Your task to perform on an android device: What's on my calendar today? Image 0: 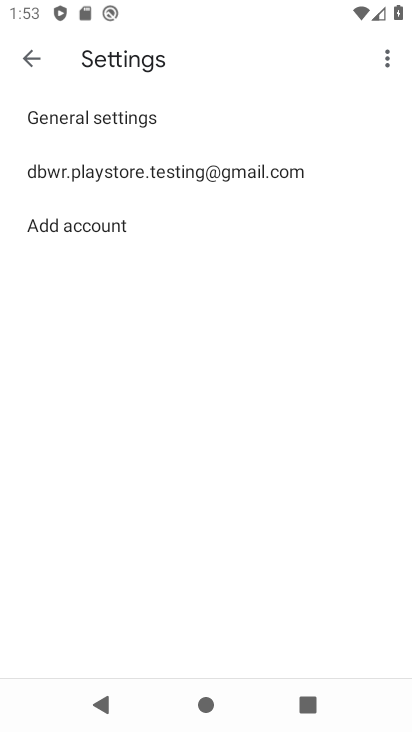
Step 0: press back button
Your task to perform on an android device: What's on my calendar today? Image 1: 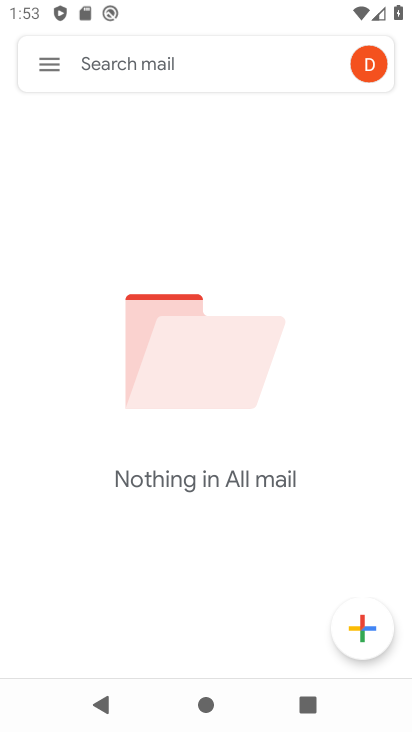
Step 1: press back button
Your task to perform on an android device: What's on my calendar today? Image 2: 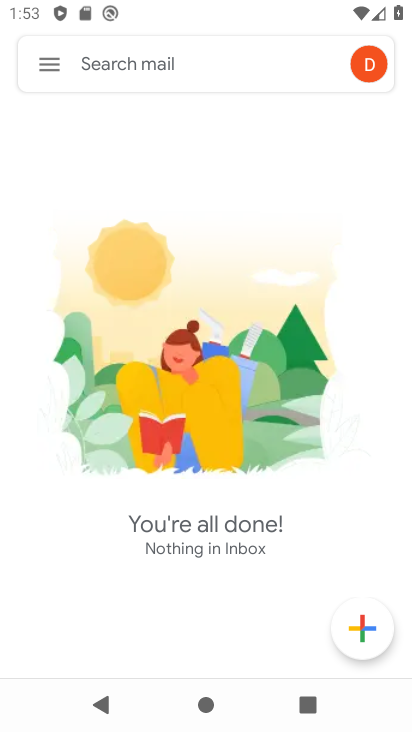
Step 2: press home button
Your task to perform on an android device: What's on my calendar today? Image 3: 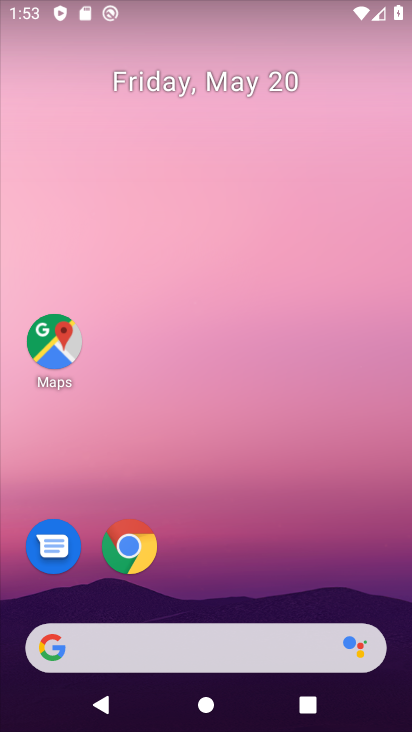
Step 3: drag from (228, 549) to (201, 22)
Your task to perform on an android device: What's on my calendar today? Image 4: 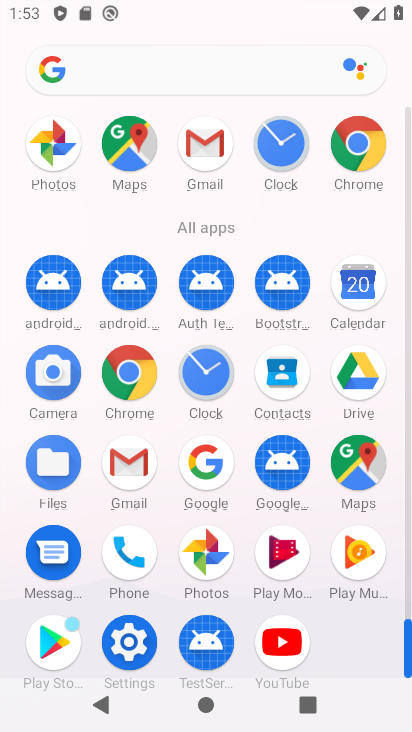
Step 4: drag from (15, 541) to (18, 280)
Your task to perform on an android device: What's on my calendar today? Image 5: 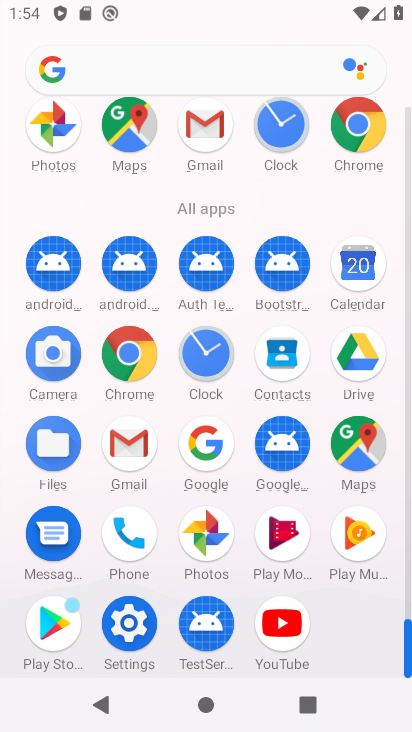
Step 5: drag from (7, 584) to (28, 322)
Your task to perform on an android device: What's on my calendar today? Image 6: 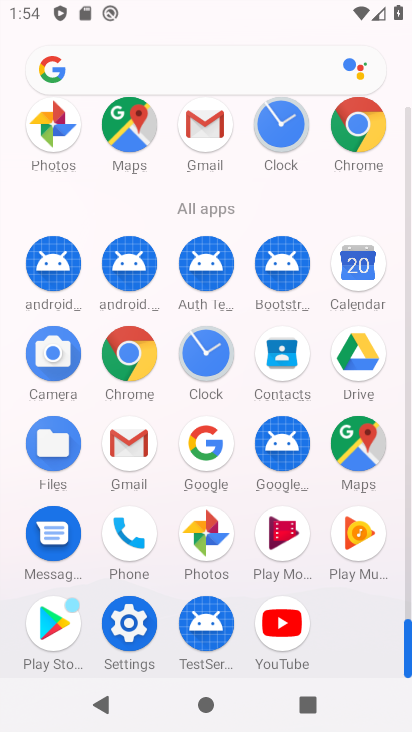
Step 6: click (352, 260)
Your task to perform on an android device: What's on my calendar today? Image 7: 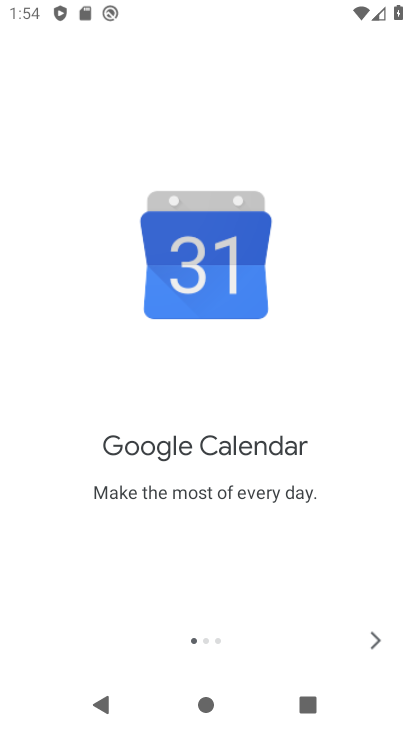
Step 7: click (376, 635)
Your task to perform on an android device: What's on my calendar today? Image 8: 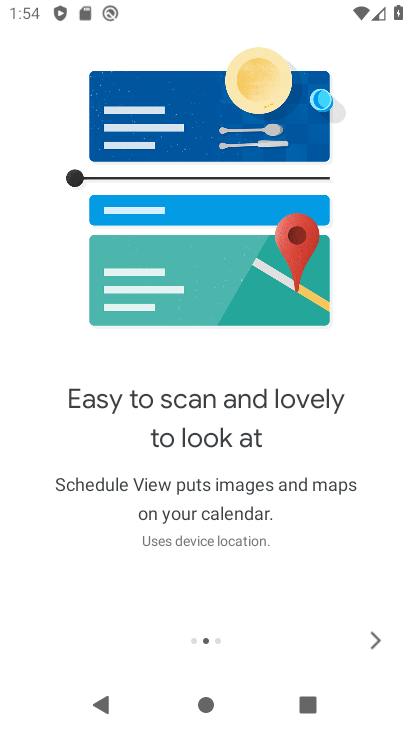
Step 8: click (372, 631)
Your task to perform on an android device: What's on my calendar today? Image 9: 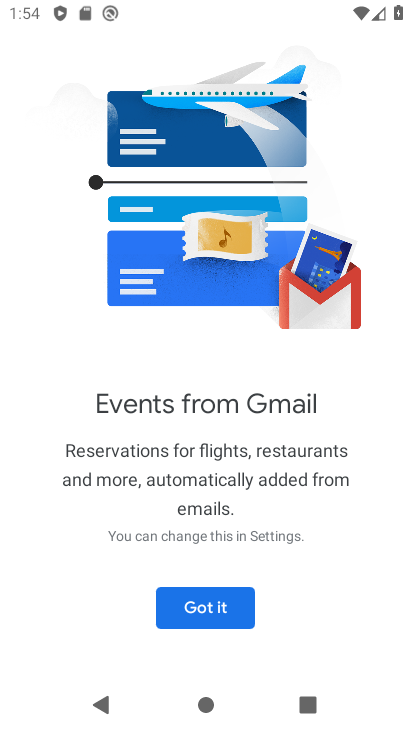
Step 9: click (217, 594)
Your task to perform on an android device: What's on my calendar today? Image 10: 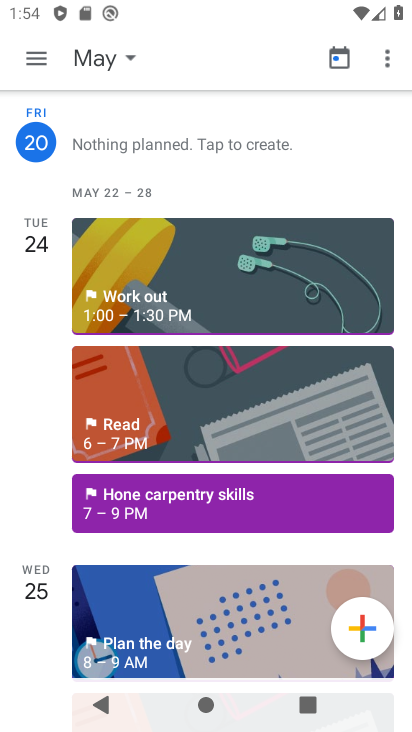
Step 10: click (325, 59)
Your task to perform on an android device: What's on my calendar today? Image 11: 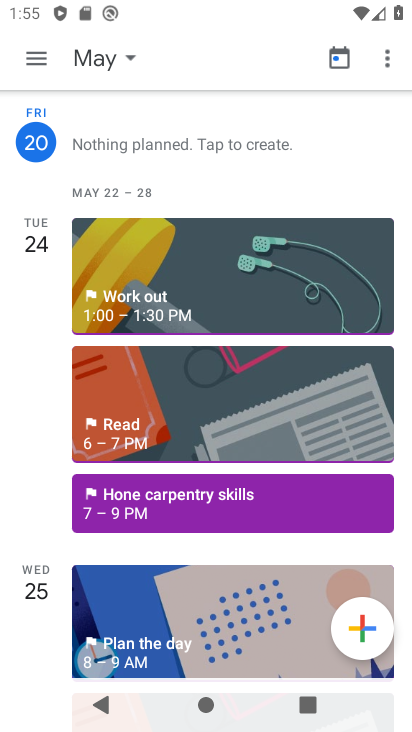
Step 11: task complete